Your task to perform on an android device: see tabs open on other devices in the chrome app Image 0: 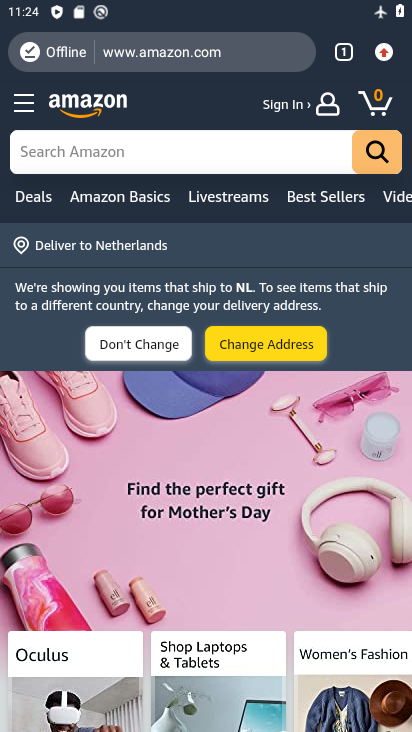
Step 0: drag from (373, 98) to (383, 62)
Your task to perform on an android device: see tabs open on other devices in the chrome app Image 1: 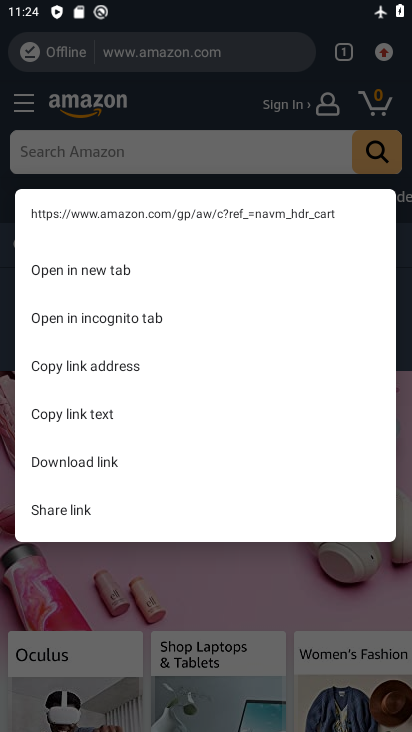
Step 1: click (383, 59)
Your task to perform on an android device: see tabs open on other devices in the chrome app Image 2: 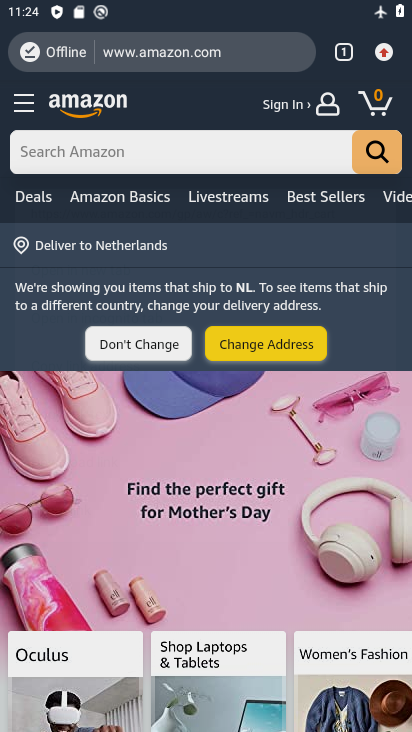
Step 2: click (383, 59)
Your task to perform on an android device: see tabs open on other devices in the chrome app Image 3: 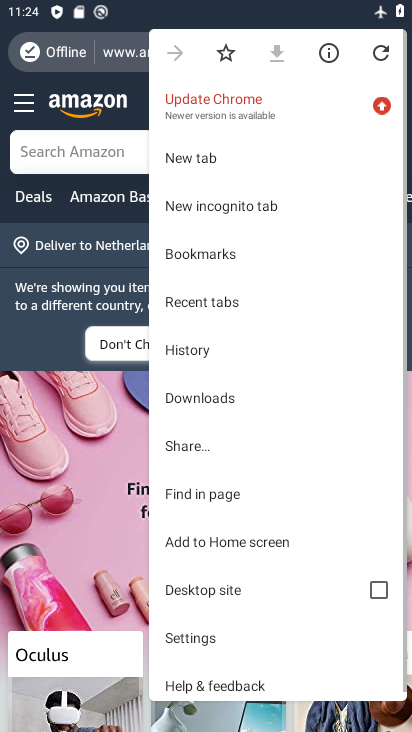
Step 3: drag from (383, 56) to (217, 291)
Your task to perform on an android device: see tabs open on other devices in the chrome app Image 4: 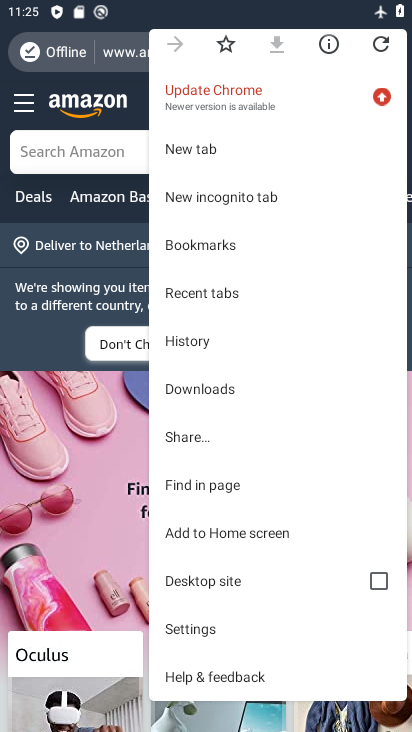
Step 4: click (217, 291)
Your task to perform on an android device: see tabs open on other devices in the chrome app Image 5: 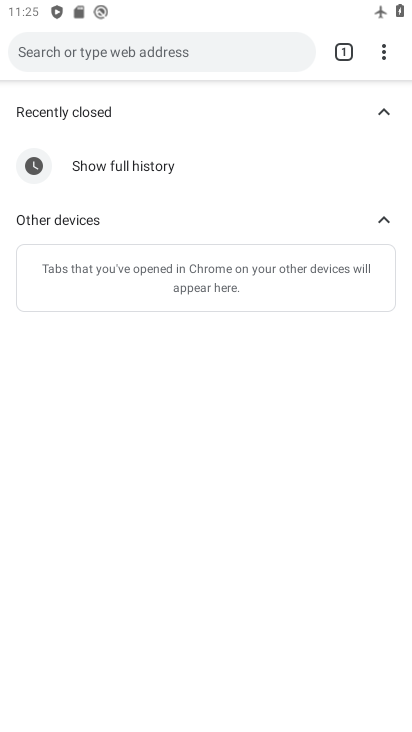
Step 5: task complete